Your task to perform on an android device: change the clock display to analog Image 0: 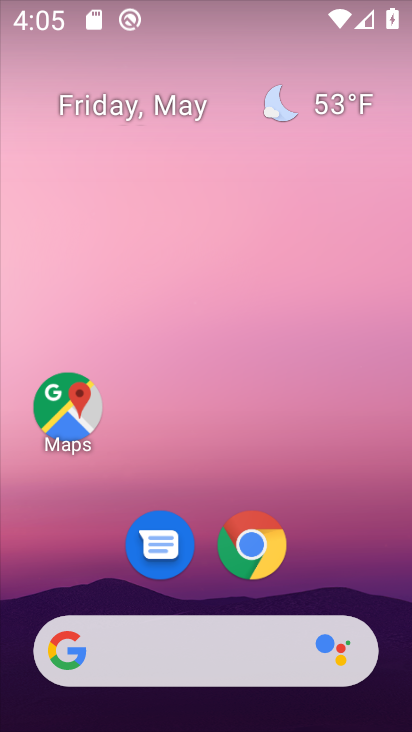
Step 0: drag from (366, 510) to (364, 238)
Your task to perform on an android device: change the clock display to analog Image 1: 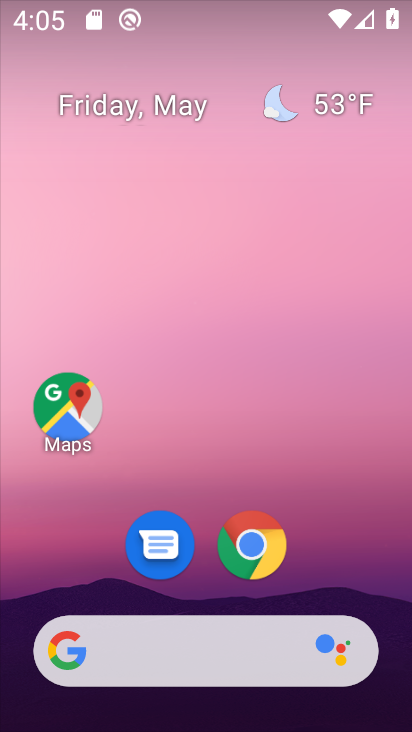
Step 1: drag from (390, 568) to (381, 216)
Your task to perform on an android device: change the clock display to analog Image 2: 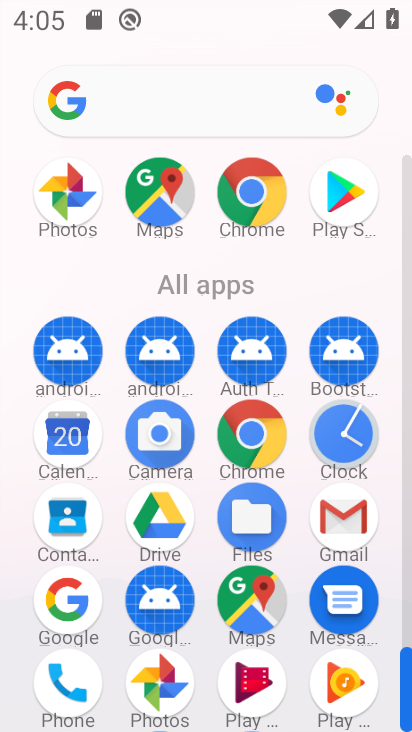
Step 2: click (355, 450)
Your task to perform on an android device: change the clock display to analog Image 3: 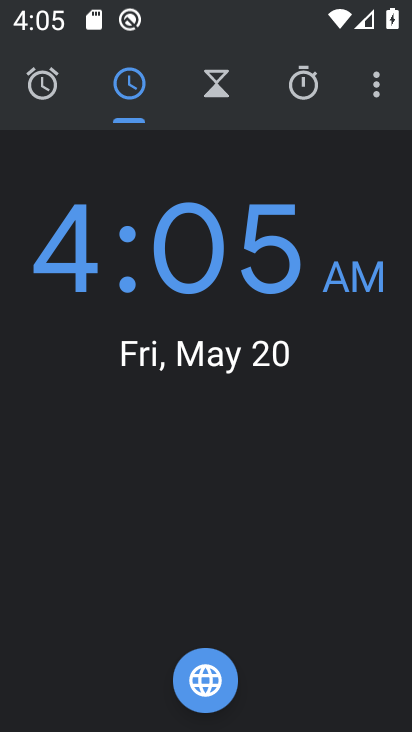
Step 3: click (374, 102)
Your task to perform on an android device: change the clock display to analog Image 4: 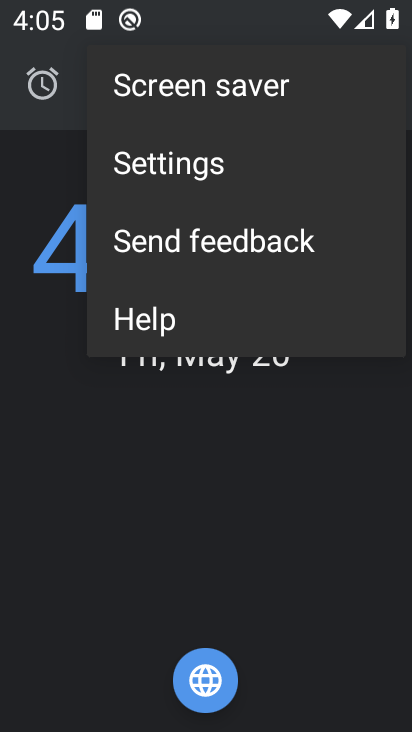
Step 4: click (266, 169)
Your task to perform on an android device: change the clock display to analog Image 5: 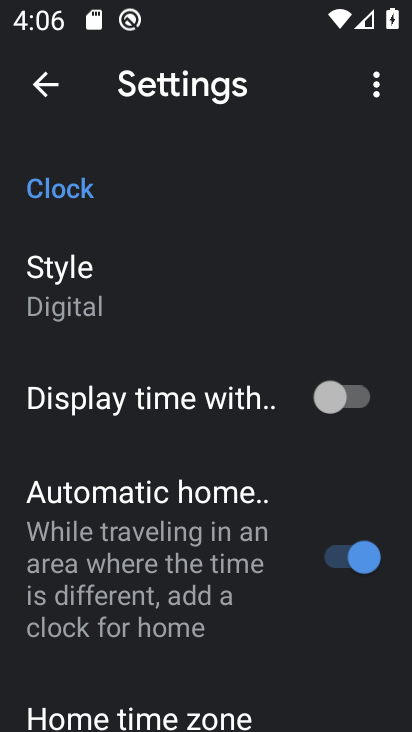
Step 5: drag from (246, 528) to (270, 387)
Your task to perform on an android device: change the clock display to analog Image 6: 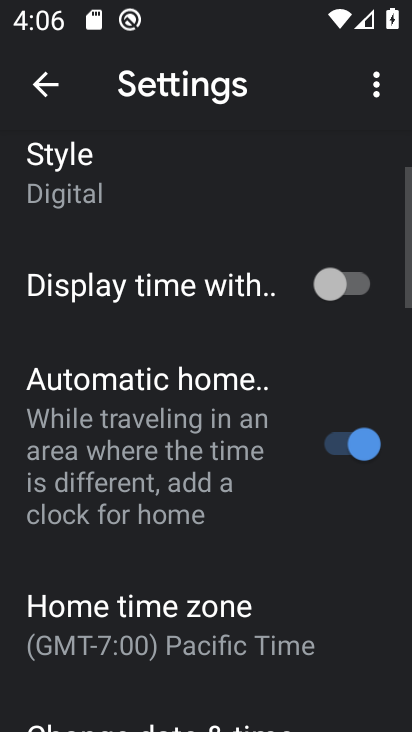
Step 6: drag from (303, 558) to (298, 448)
Your task to perform on an android device: change the clock display to analog Image 7: 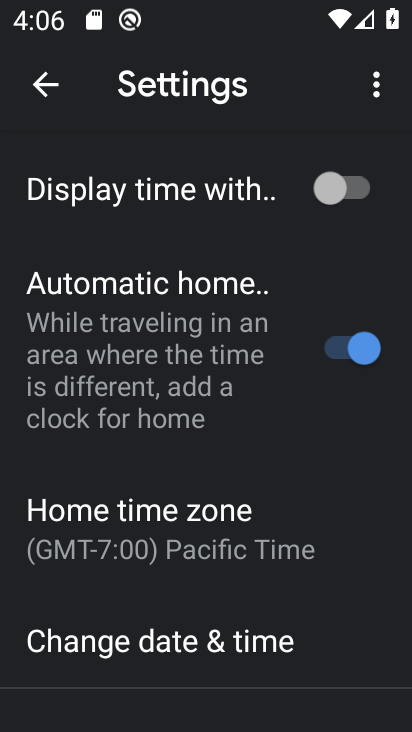
Step 7: drag from (292, 585) to (292, 518)
Your task to perform on an android device: change the clock display to analog Image 8: 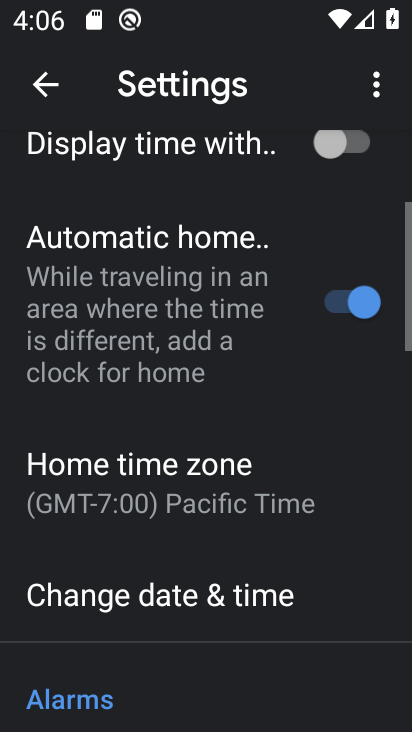
Step 8: drag from (290, 615) to (290, 544)
Your task to perform on an android device: change the clock display to analog Image 9: 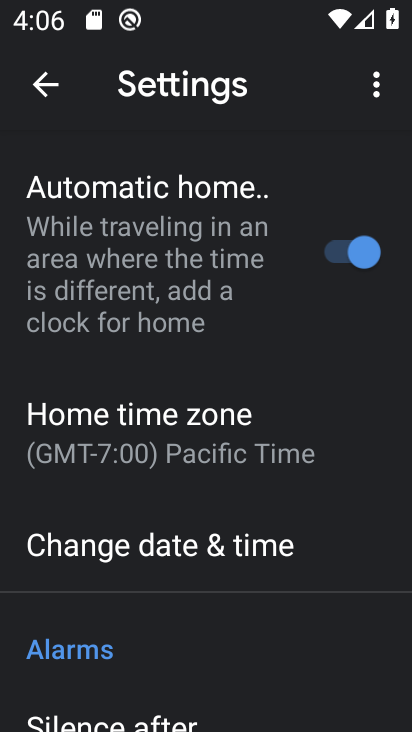
Step 9: drag from (275, 636) to (279, 563)
Your task to perform on an android device: change the clock display to analog Image 10: 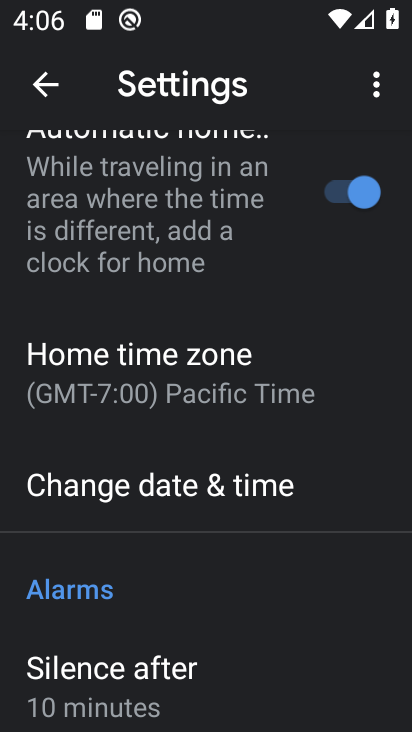
Step 10: drag from (276, 639) to (270, 570)
Your task to perform on an android device: change the clock display to analog Image 11: 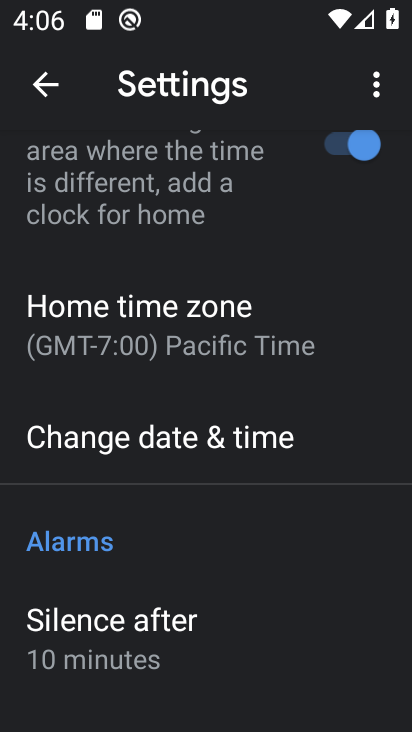
Step 11: drag from (271, 638) to (272, 574)
Your task to perform on an android device: change the clock display to analog Image 12: 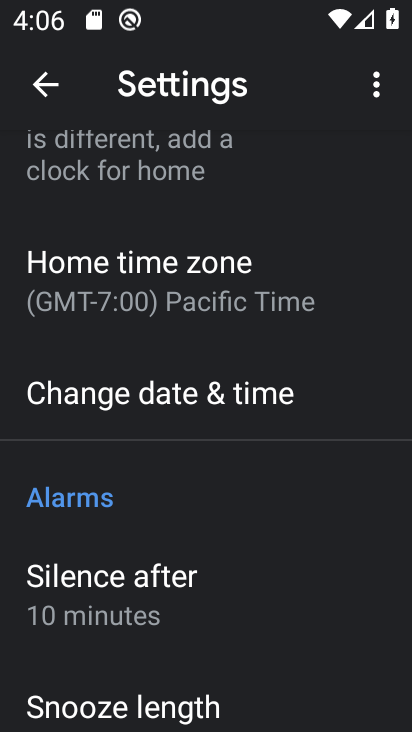
Step 12: drag from (269, 641) to (270, 574)
Your task to perform on an android device: change the clock display to analog Image 13: 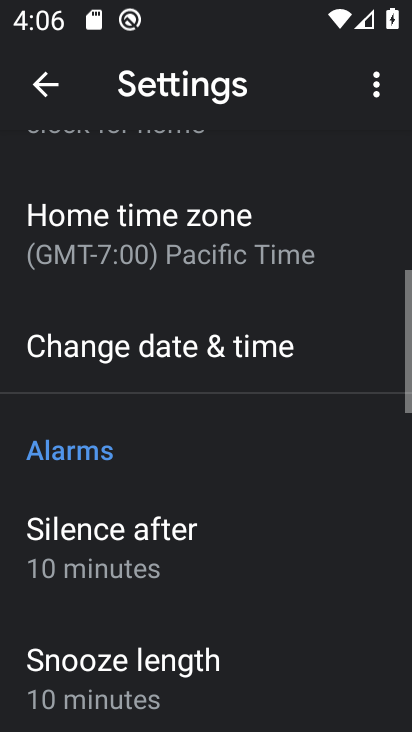
Step 13: drag from (276, 633) to (274, 549)
Your task to perform on an android device: change the clock display to analog Image 14: 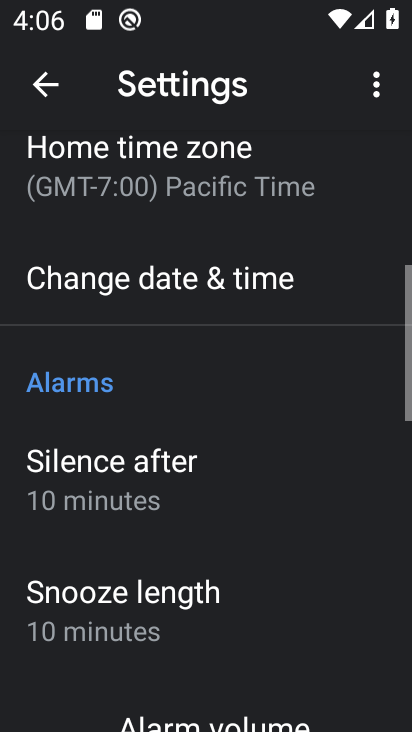
Step 14: drag from (265, 630) to (262, 548)
Your task to perform on an android device: change the clock display to analog Image 15: 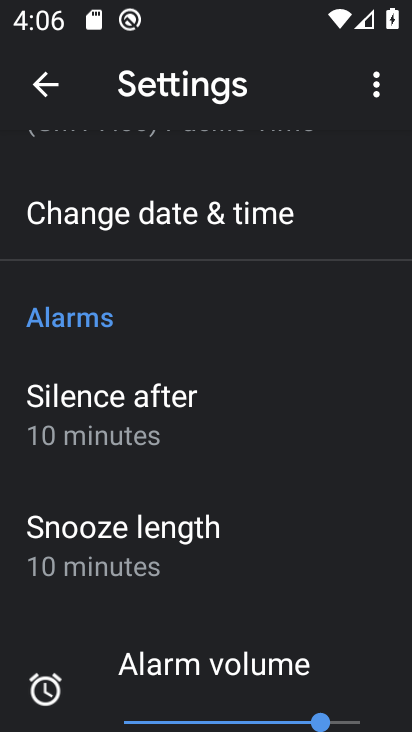
Step 15: drag from (246, 601) to (243, 563)
Your task to perform on an android device: change the clock display to analog Image 16: 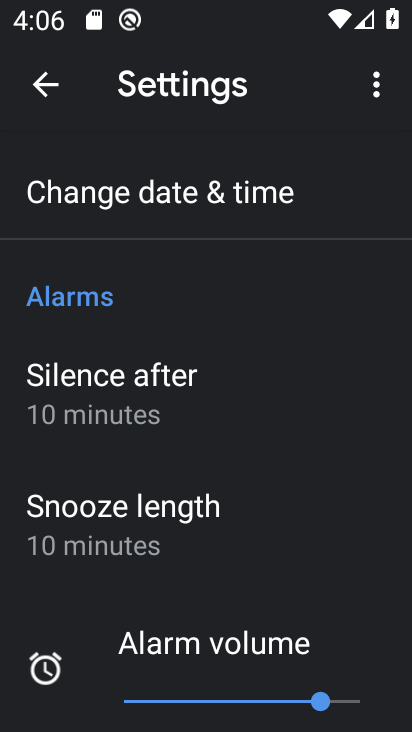
Step 16: drag from (244, 655) to (285, 340)
Your task to perform on an android device: change the clock display to analog Image 17: 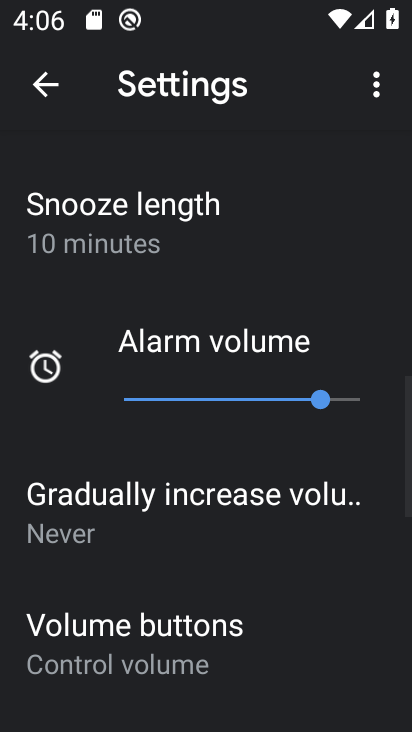
Step 17: drag from (287, 307) to (286, 455)
Your task to perform on an android device: change the clock display to analog Image 18: 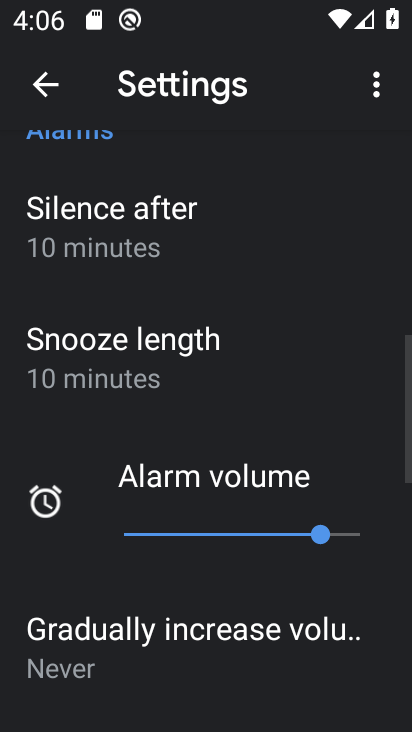
Step 18: drag from (283, 345) to (280, 456)
Your task to perform on an android device: change the clock display to analog Image 19: 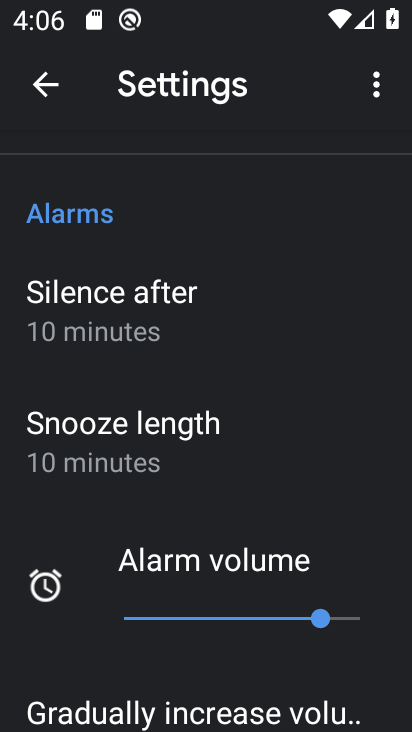
Step 19: drag from (298, 380) to (300, 474)
Your task to perform on an android device: change the clock display to analog Image 20: 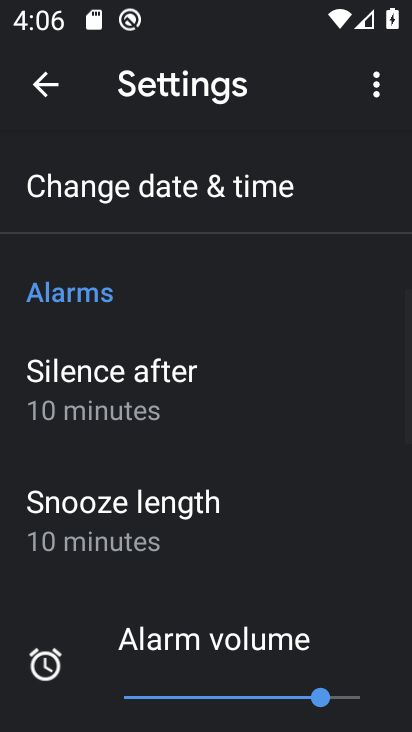
Step 20: drag from (308, 374) to (307, 474)
Your task to perform on an android device: change the clock display to analog Image 21: 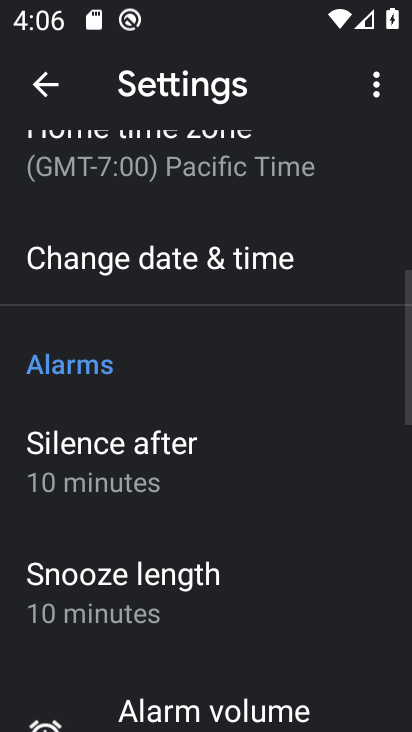
Step 21: drag from (309, 354) to (310, 474)
Your task to perform on an android device: change the clock display to analog Image 22: 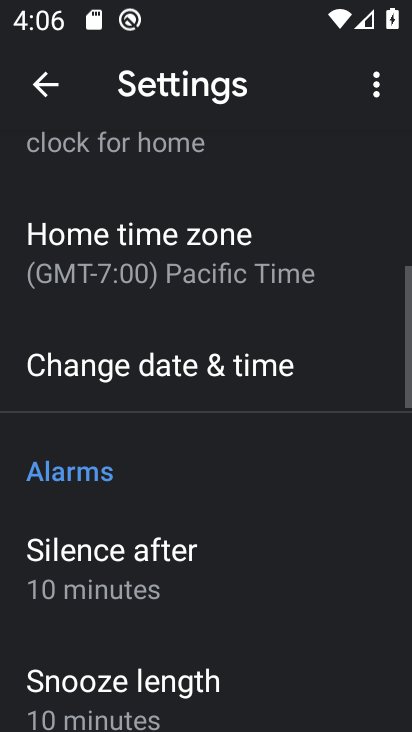
Step 22: drag from (325, 335) to (325, 457)
Your task to perform on an android device: change the clock display to analog Image 23: 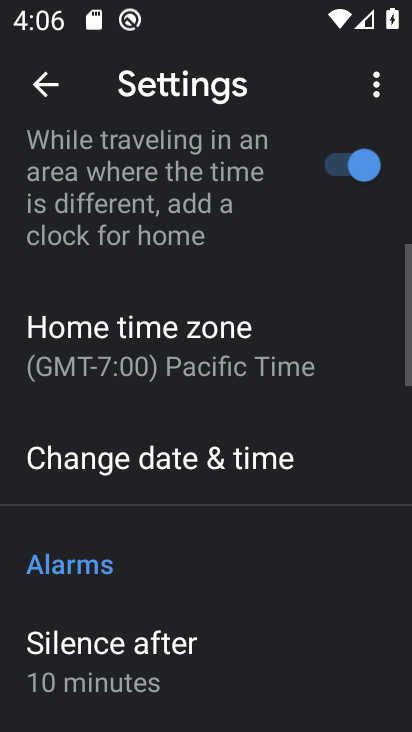
Step 23: drag from (333, 299) to (330, 425)
Your task to perform on an android device: change the clock display to analog Image 24: 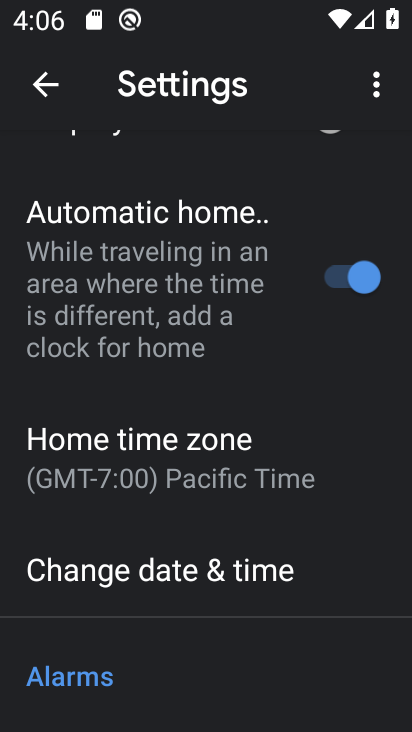
Step 24: drag from (295, 272) to (291, 406)
Your task to perform on an android device: change the clock display to analog Image 25: 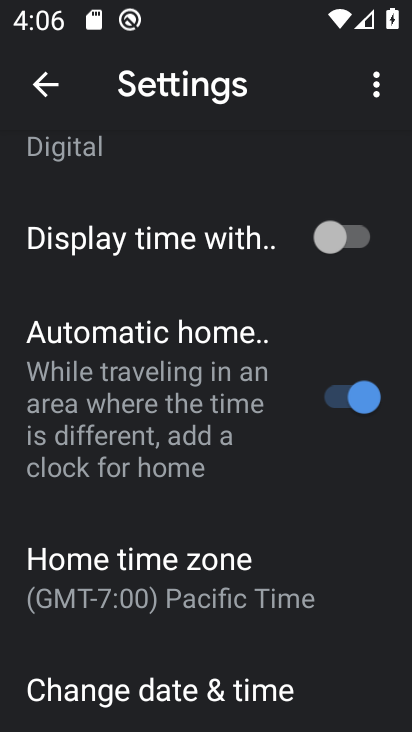
Step 25: drag from (275, 252) to (285, 384)
Your task to perform on an android device: change the clock display to analog Image 26: 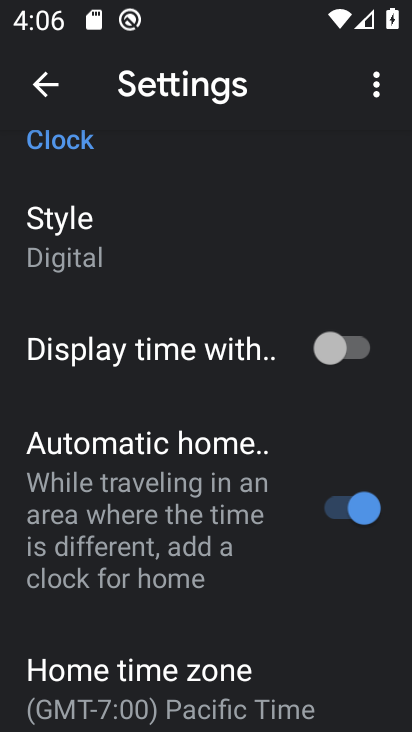
Step 26: drag from (283, 259) to (266, 395)
Your task to perform on an android device: change the clock display to analog Image 27: 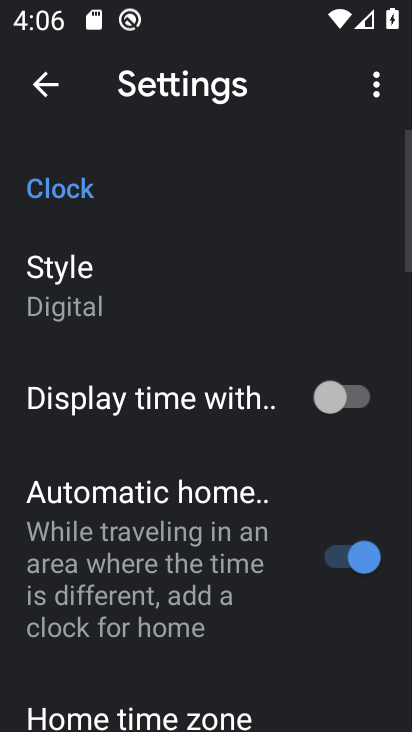
Step 27: click (63, 298)
Your task to perform on an android device: change the clock display to analog Image 28: 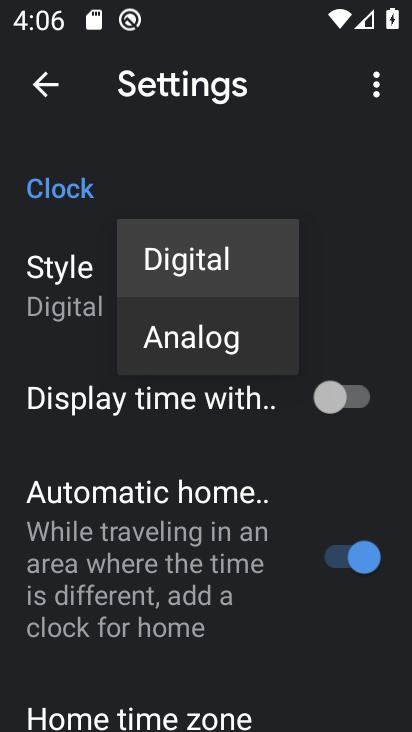
Step 28: click (223, 355)
Your task to perform on an android device: change the clock display to analog Image 29: 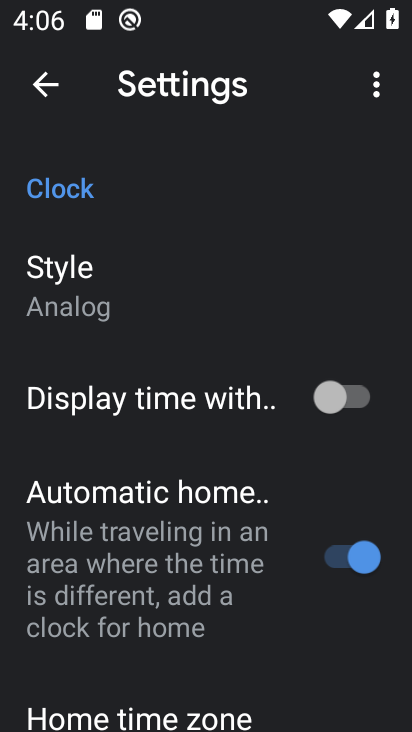
Step 29: task complete